Your task to perform on an android device: change notification settings in the gmail app Image 0: 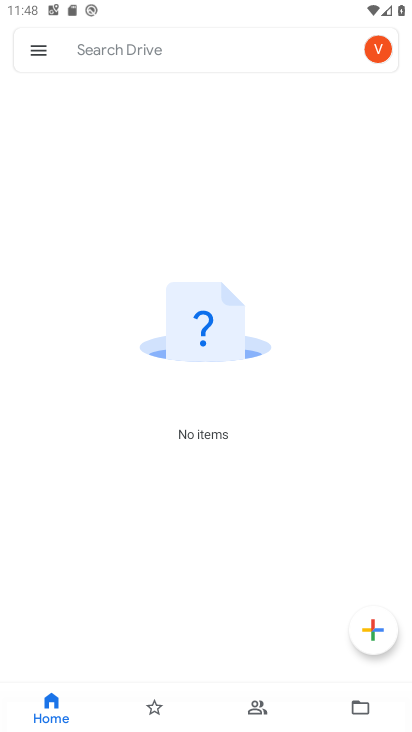
Step 0: press home button
Your task to perform on an android device: change notification settings in the gmail app Image 1: 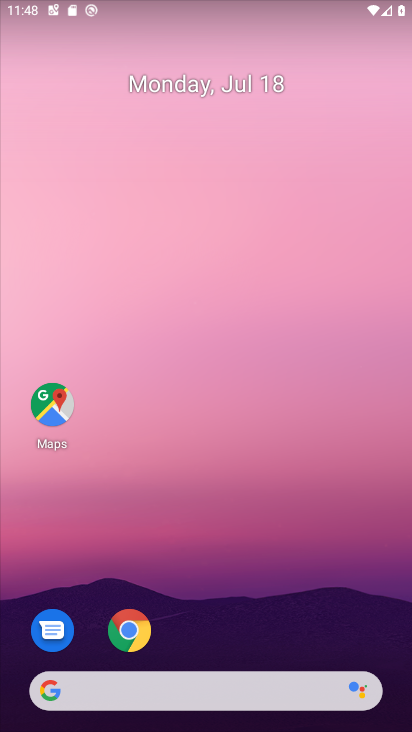
Step 1: drag from (220, 638) to (223, 69)
Your task to perform on an android device: change notification settings in the gmail app Image 2: 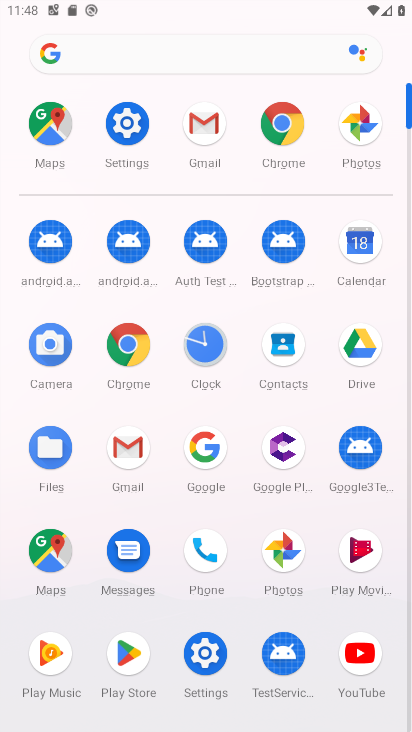
Step 2: click (130, 462)
Your task to perform on an android device: change notification settings in the gmail app Image 3: 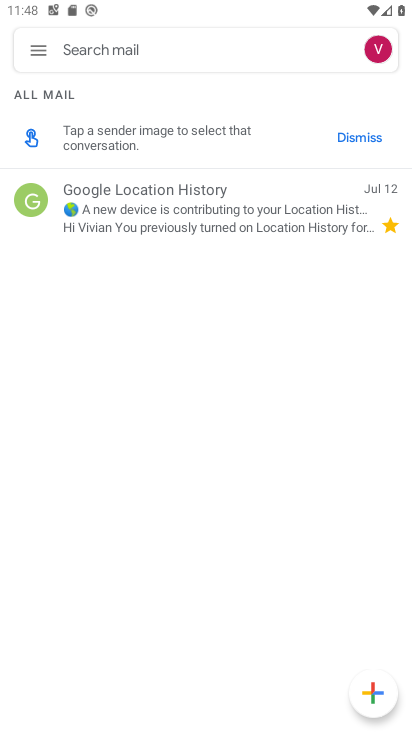
Step 3: click (48, 41)
Your task to perform on an android device: change notification settings in the gmail app Image 4: 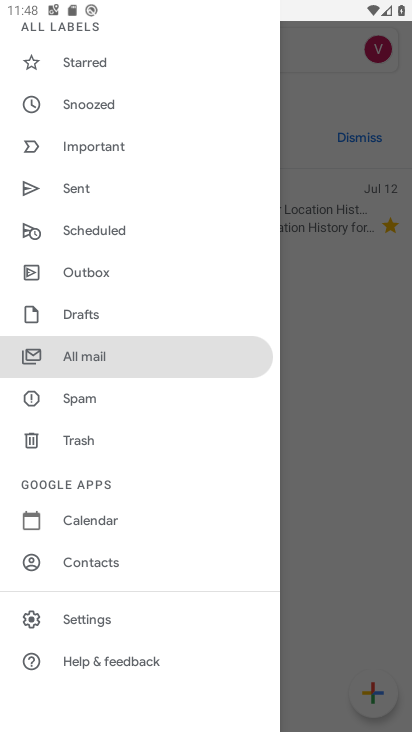
Step 4: click (96, 621)
Your task to perform on an android device: change notification settings in the gmail app Image 5: 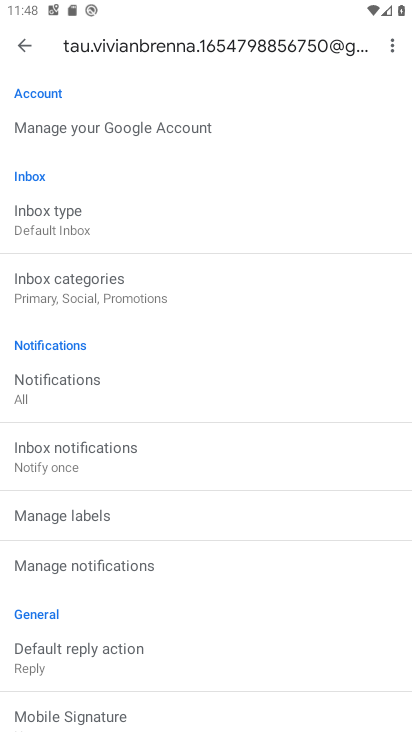
Step 5: click (16, 41)
Your task to perform on an android device: change notification settings in the gmail app Image 6: 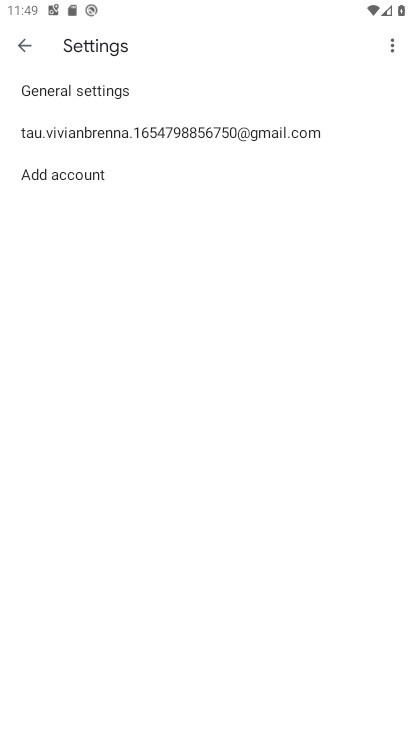
Step 6: click (124, 88)
Your task to perform on an android device: change notification settings in the gmail app Image 7: 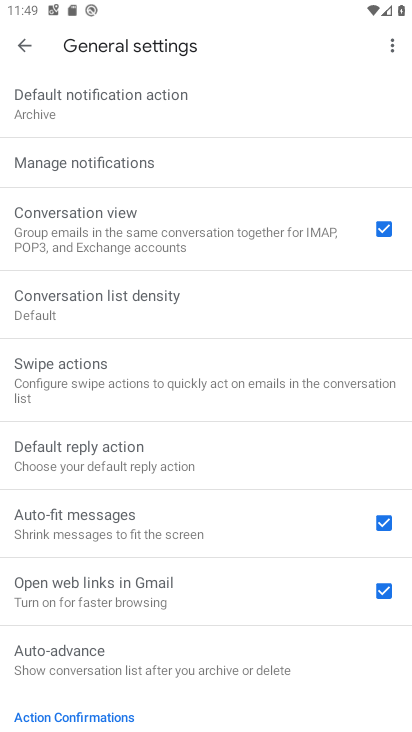
Step 7: click (115, 168)
Your task to perform on an android device: change notification settings in the gmail app Image 8: 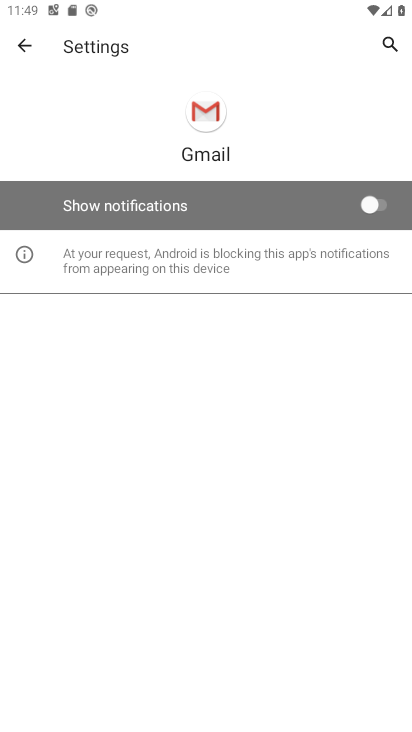
Step 8: click (392, 216)
Your task to perform on an android device: change notification settings in the gmail app Image 9: 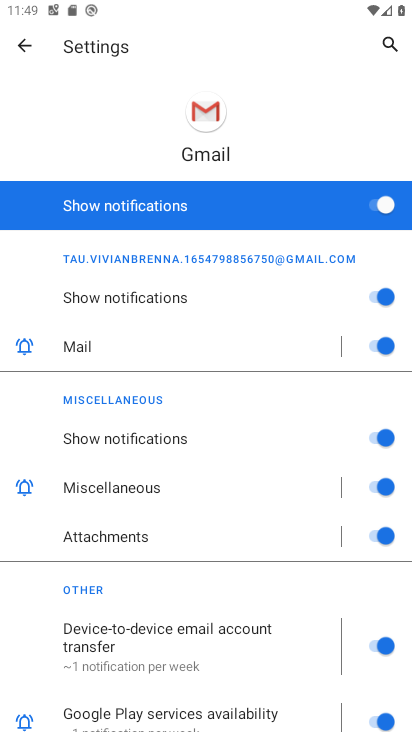
Step 9: task complete